Your task to perform on an android device: Go to Google Image 0: 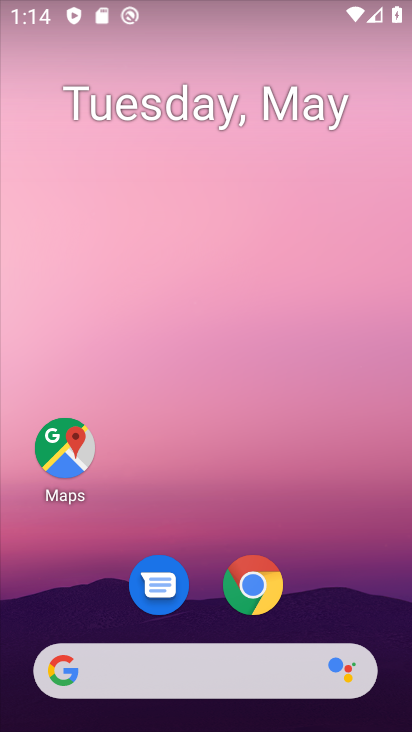
Step 0: click (241, 675)
Your task to perform on an android device: Go to Google Image 1: 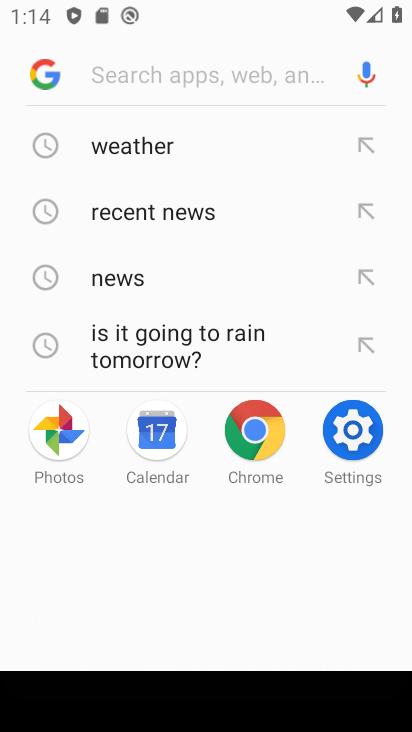
Step 1: click (49, 79)
Your task to perform on an android device: Go to Google Image 2: 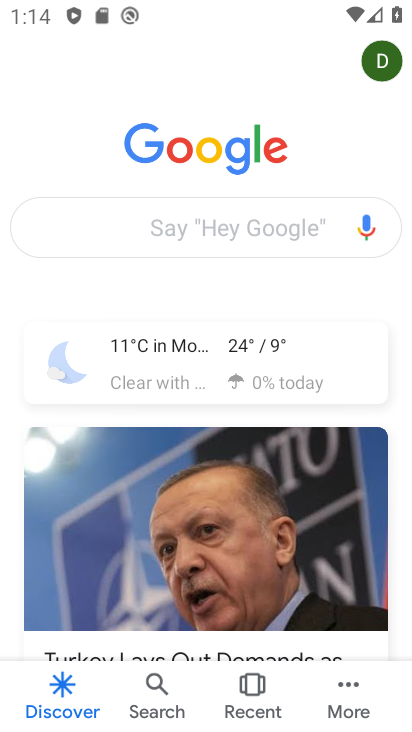
Step 2: task complete